Your task to perform on an android device: turn smart compose on in the gmail app Image 0: 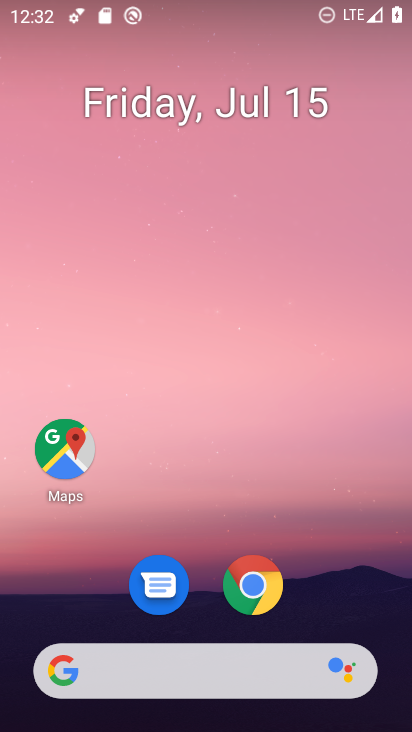
Step 0: drag from (235, 476) to (273, 70)
Your task to perform on an android device: turn smart compose on in the gmail app Image 1: 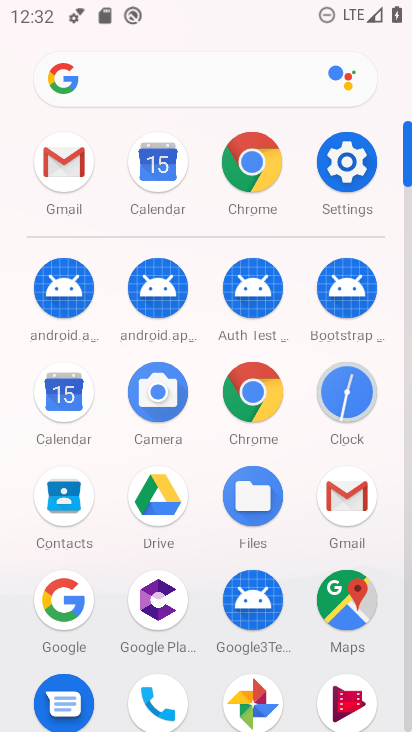
Step 1: click (71, 157)
Your task to perform on an android device: turn smart compose on in the gmail app Image 2: 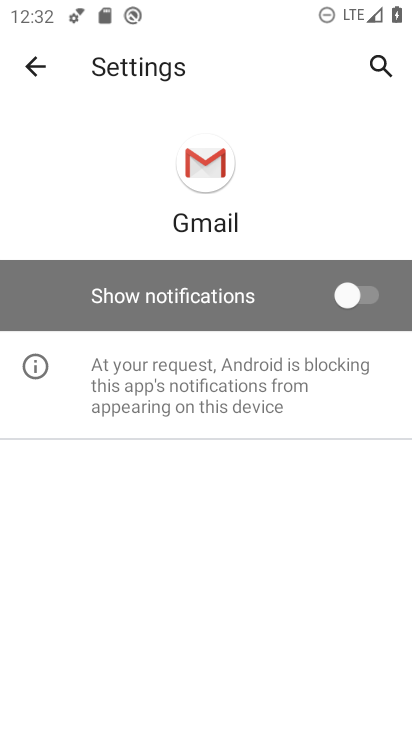
Step 2: click (35, 61)
Your task to perform on an android device: turn smart compose on in the gmail app Image 3: 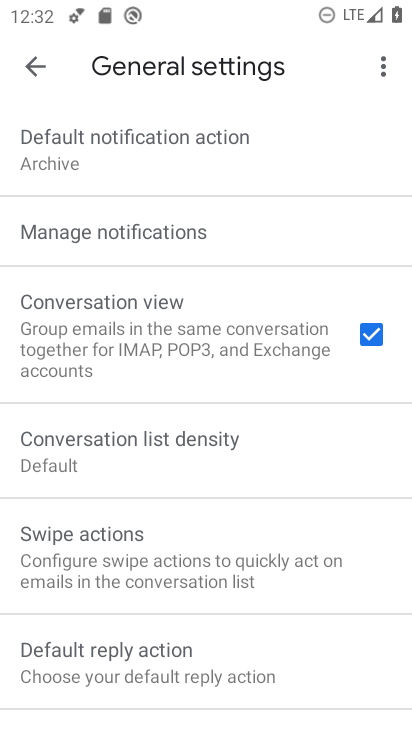
Step 3: click (37, 68)
Your task to perform on an android device: turn smart compose on in the gmail app Image 4: 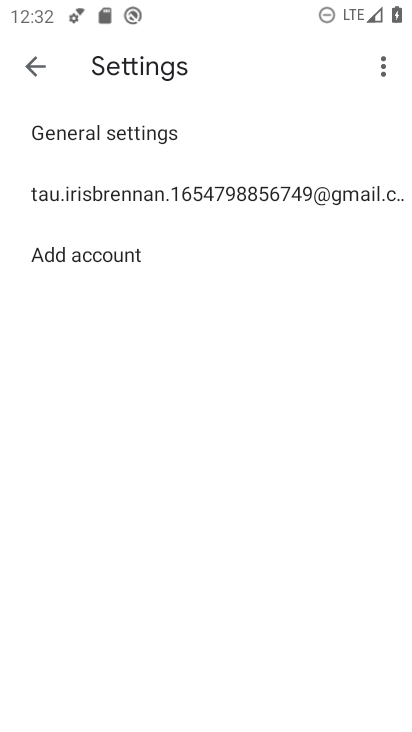
Step 4: click (245, 191)
Your task to perform on an android device: turn smart compose on in the gmail app Image 5: 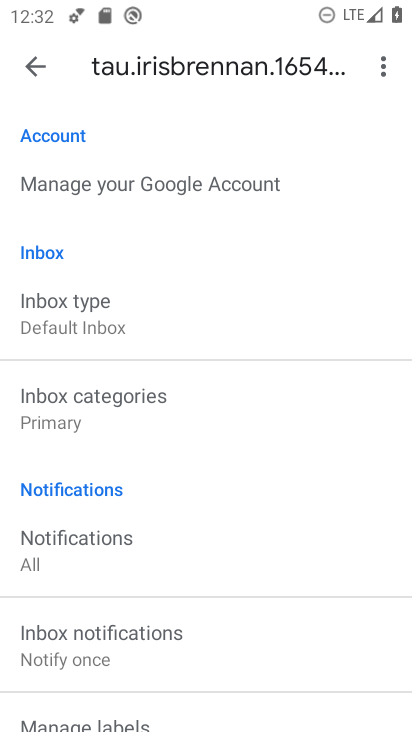
Step 5: task complete